Your task to perform on an android device: open sync settings in chrome Image 0: 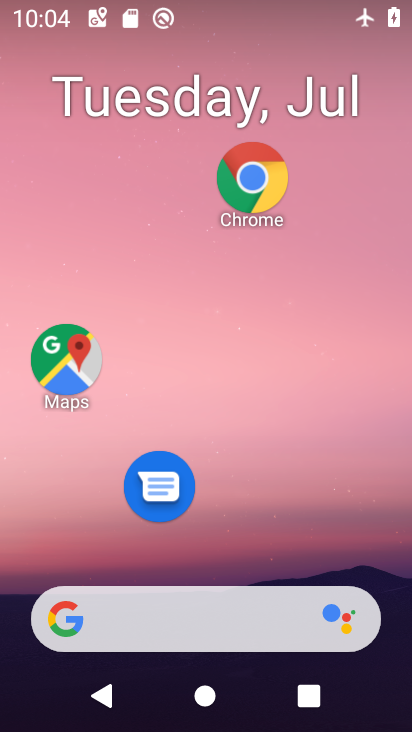
Step 0: drag from (231, 598) to (180, 213)
Your task to perform on an android device: open sync settings in chrome Image 1: 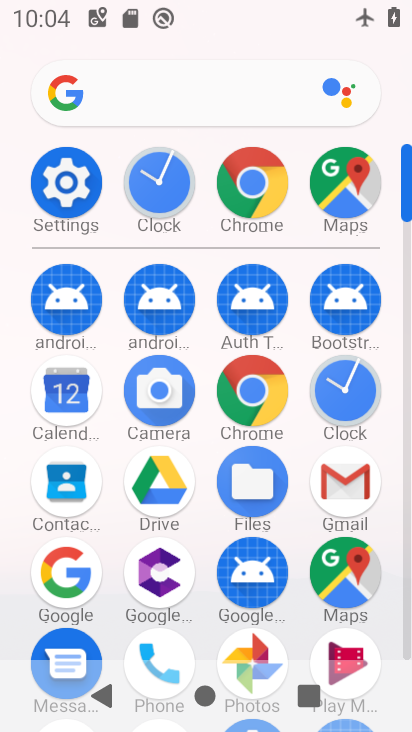
Step 1: click (235, 215)
Your task to perform on an android device: open sync settings in chrome Image 2: 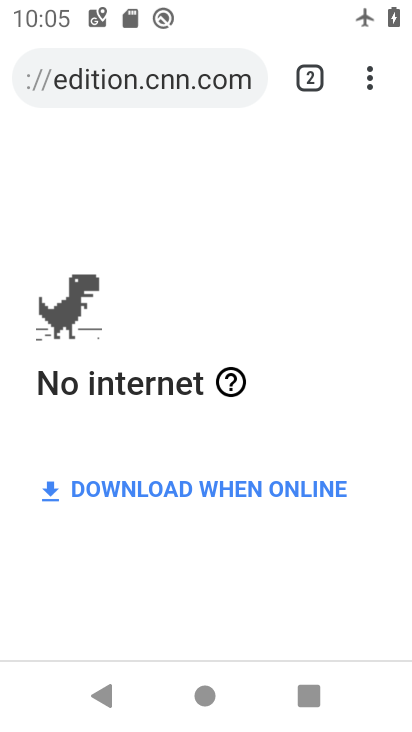
Step 2: click (373, 81)
Your task to perform on an android device: open sync settings in chrome Image 3: 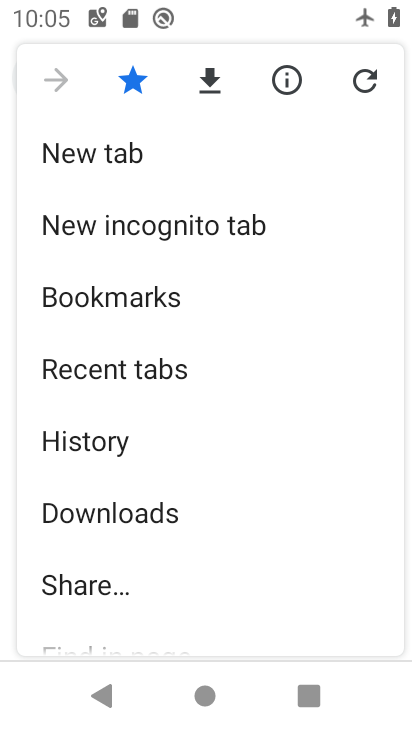
Step 3: drag from (101, 564) to (171, 174)
Your task to perform on an android device: open sync settings in chrome Image 4: 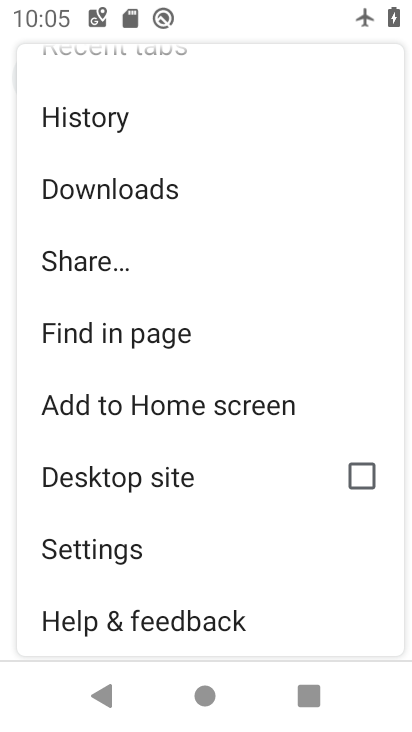
Step 4: click (122, 547)
Your task to perform on an android device: open sync settings in chrome Image 5: 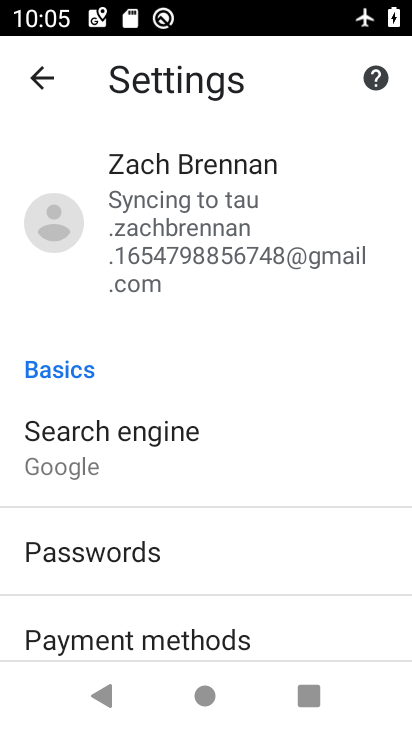
Step 5: click (246, 205)
Your task to perform on an android device: open sync settings in chrome Image 6: 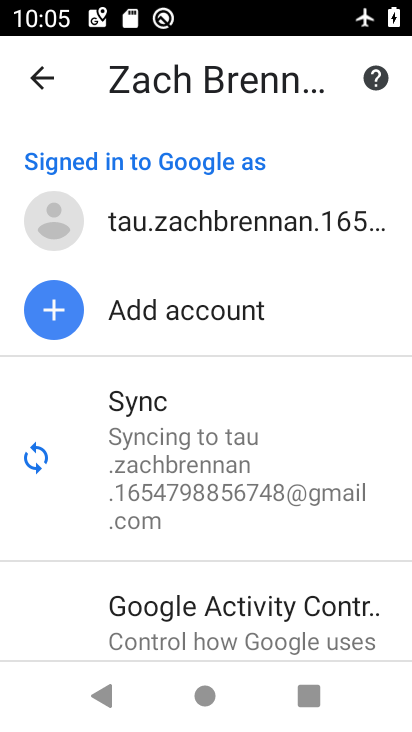
Step 6: click (198, 455)
Your task to perform on an android device: open sync settings in chrome Image 7: 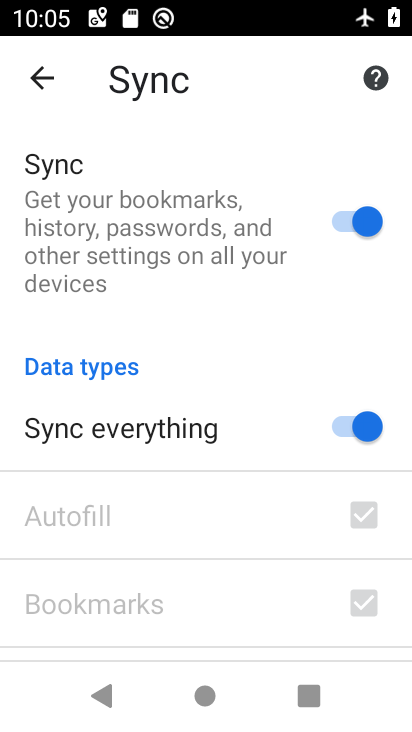
Step 7: task complete